Your task to perform on an android device: turn on wifi Image 0: 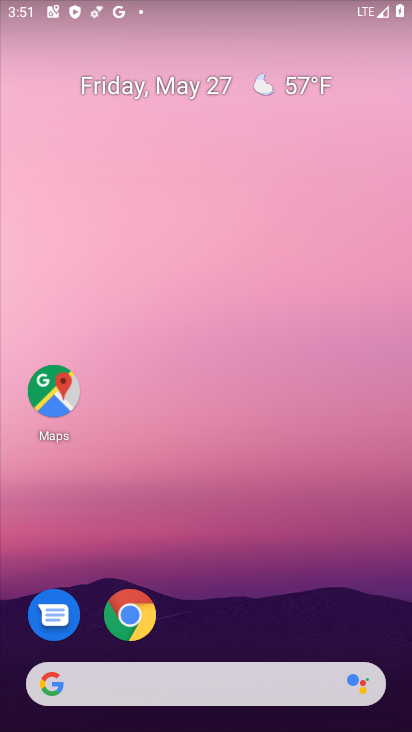
Step 0: drag from (238, 626) to (240, 0)
Your task to perform on an android device: turn on wifi Image 1: 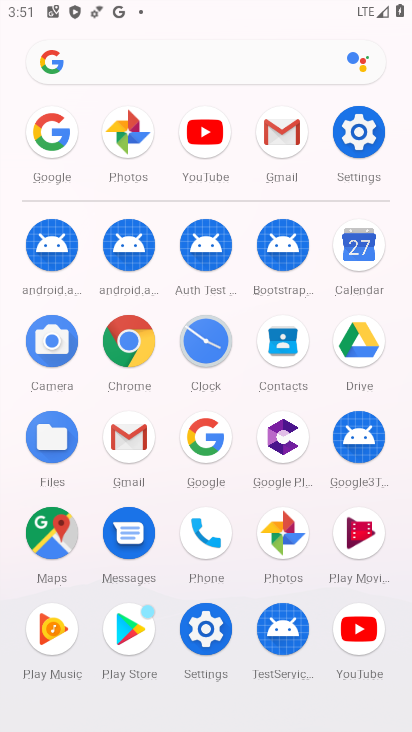
Step 1: click (362, 125)
Your task to perform on an android device: turn on wifi Image 2: 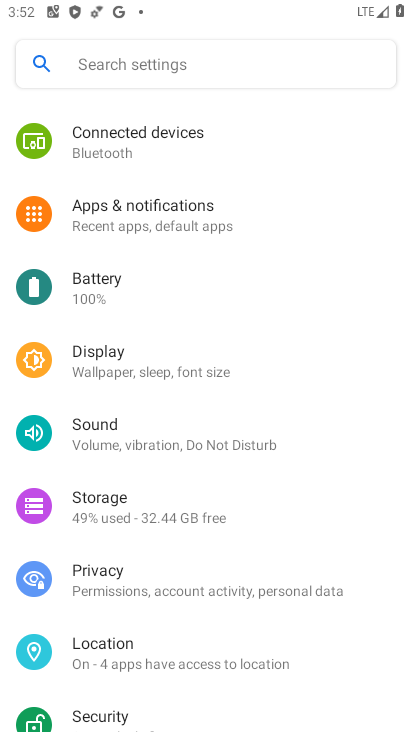
Step 2: drag from (287, 157) to (273, 445)
Your task to perform on an android device: turn on wifi Image 3: 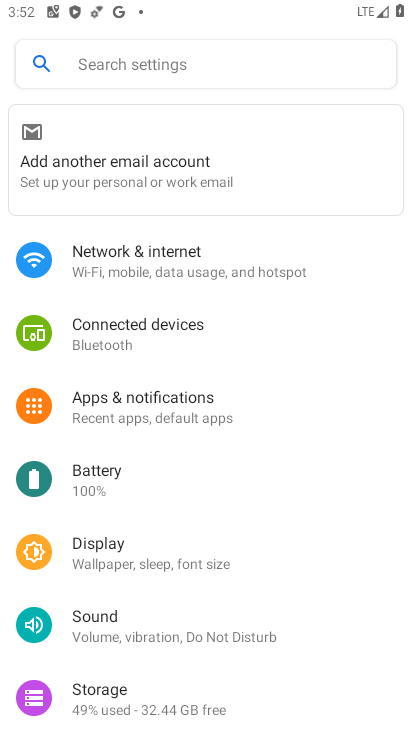
Step 3: click (164, 275)
Your task to perform on an android device: turn on wifi Image 4: 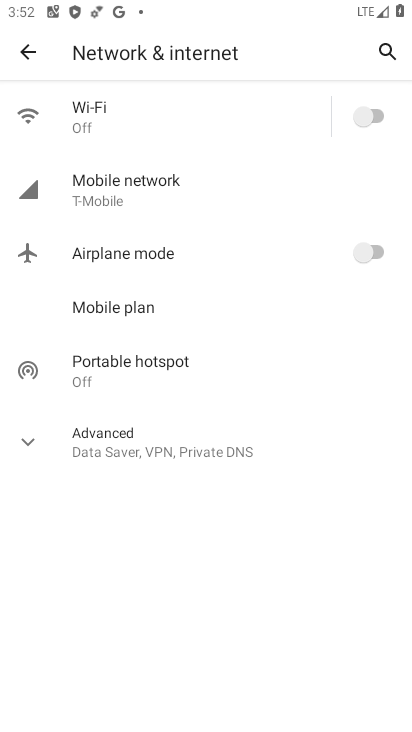
Step 4: click (382, 109)
Your task to perform on an android device: turn on wifi Image 5: 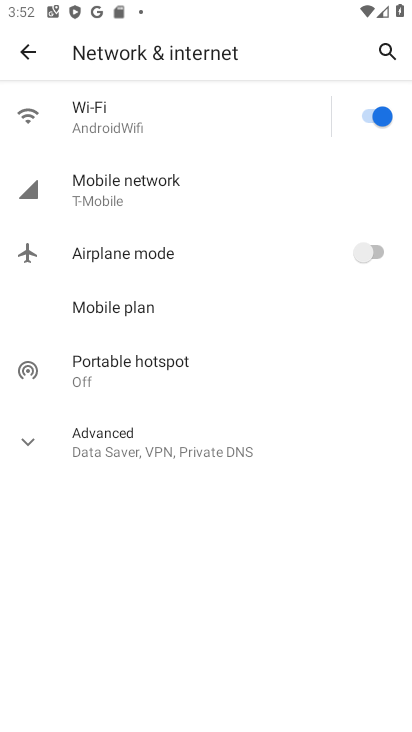
Step 5: task complete